Your task to perform on an android device: Search for dining sets on article.com Image 0: 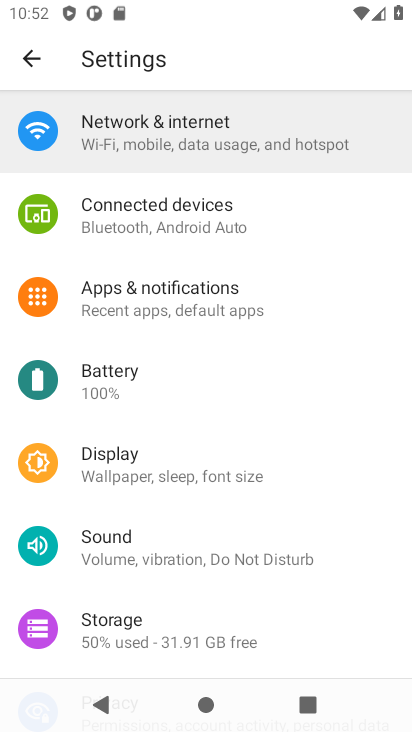
Step 0: press home button
Your task to perform on an android device: Search for dining sets on article.com Image 1: 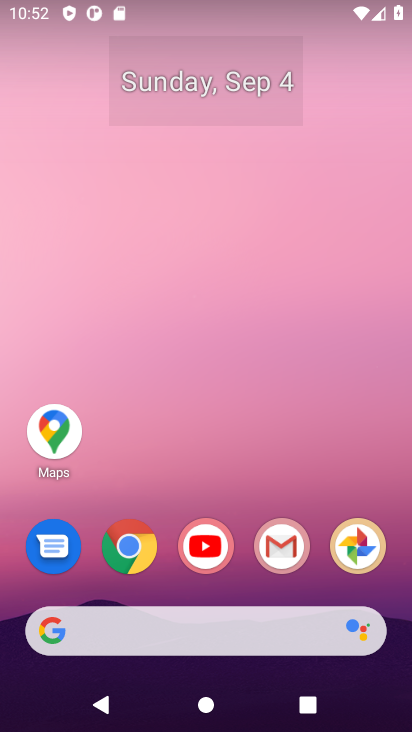
Step 1: click (126, 544)
Your task to perform on an android device: Search for dining sets on article.com Image 2: 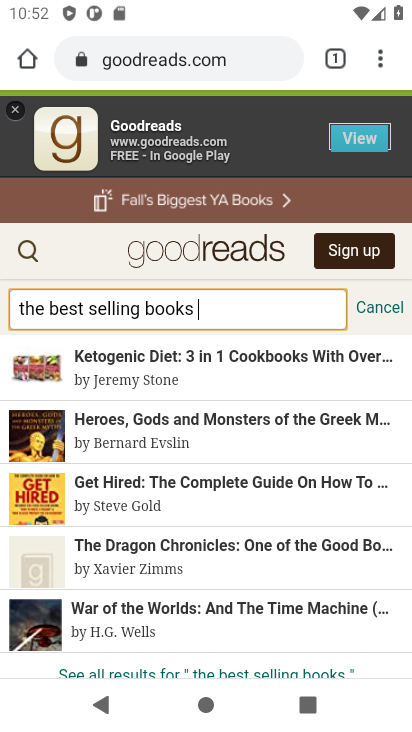
Step 2: click (120, 63)
Your task to perform on an android device: Search for dining sets on article.com Image 3: 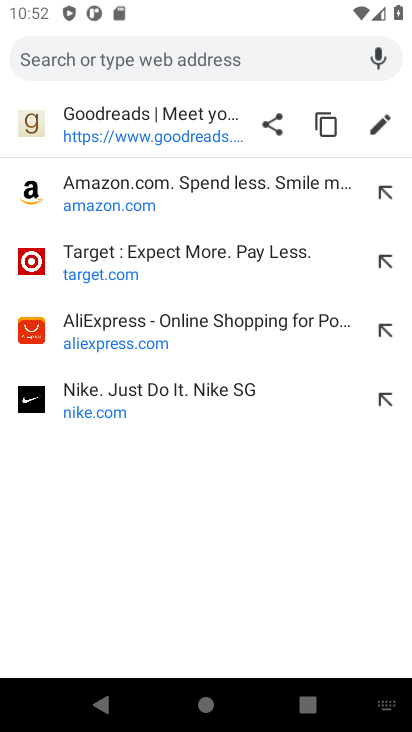
Step 3: type "article.com"
Your task to perform on an android device: Search for dining sets on article.com Image 4: 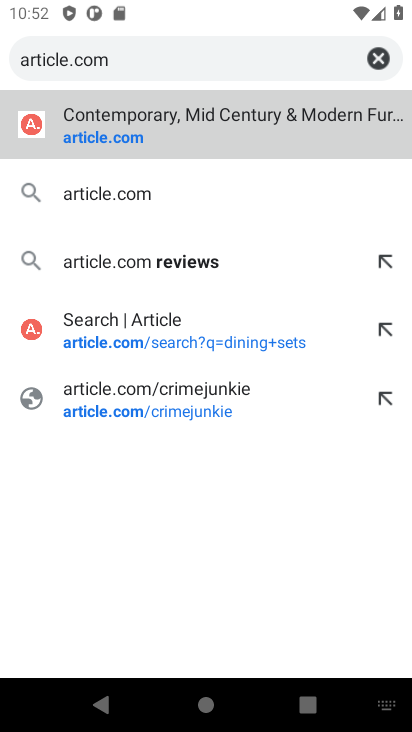
Step 4: click (119, 190)
Your task to perform on an android device: Search for dining sets on article.com Image 5: 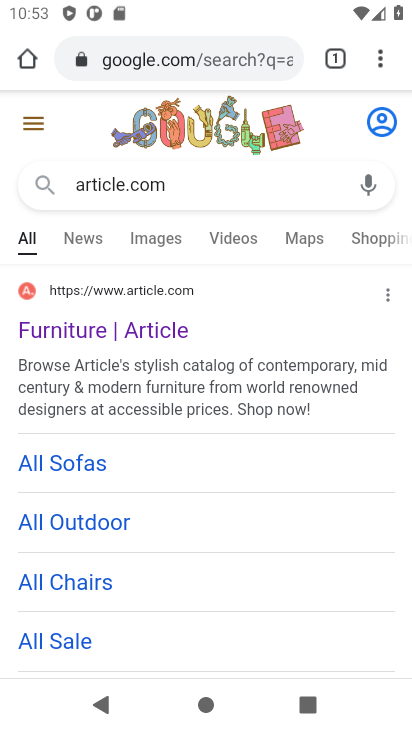
Step 5: click (93, 332)
Your task to perform on an android device: Search for dining sets on article.com Image 6: 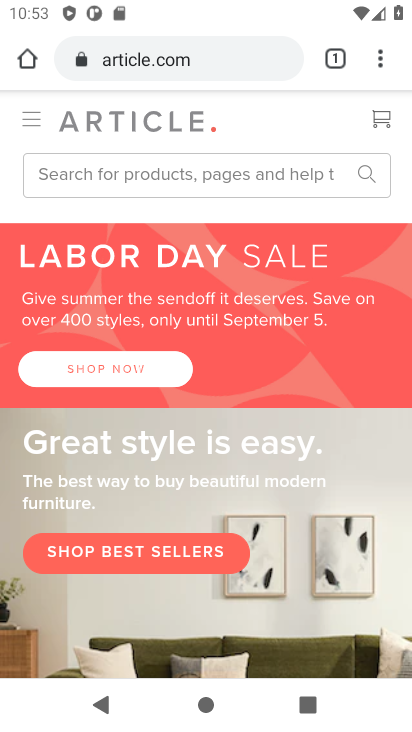
Step 6: click (193, 180)
Your task to perform on an android device: Search for dining sets on article.com Image 7: 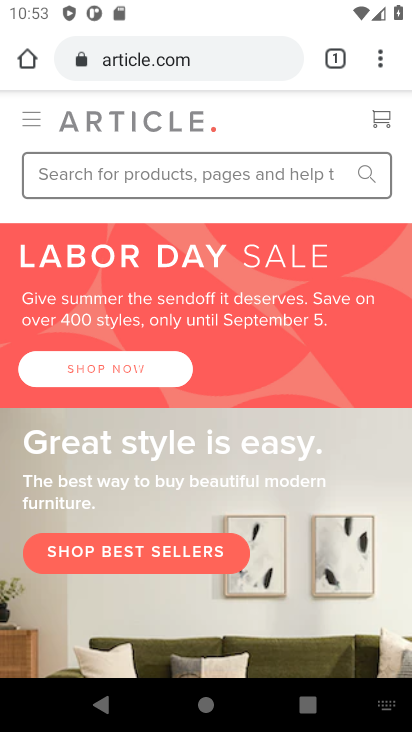
Step 7: type "dining sets"
Your task to perform on an android device: Search for dining sets on article.com Image 8: 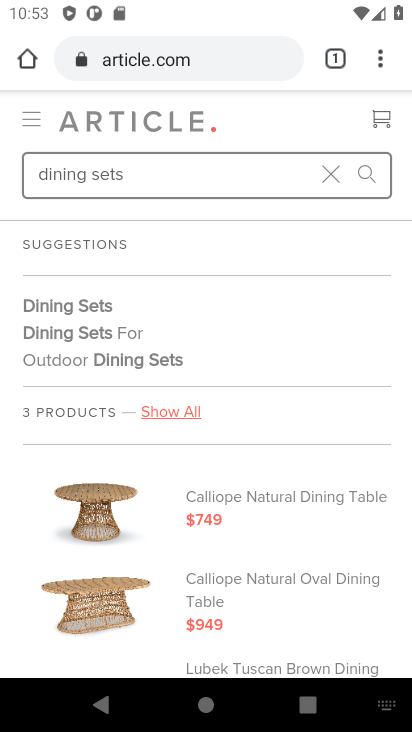
Step 8: task complete